Your task to perform on an android device: toggle sleep mode Image 0: 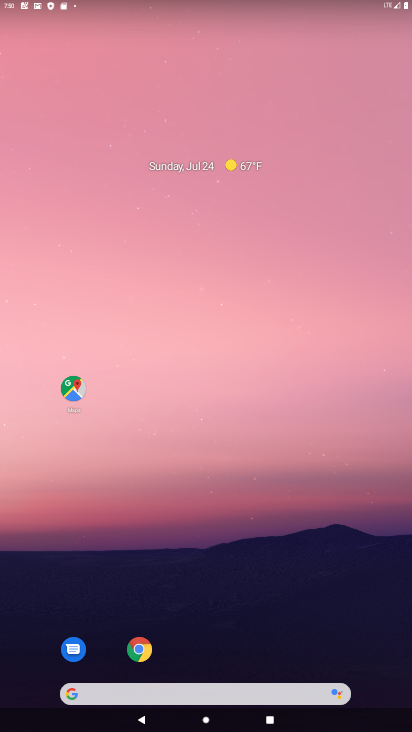
Step 0: drag from (232, 664) to (120, 70)
Your task to perform on an android device: toggle sleep mode Image 1: 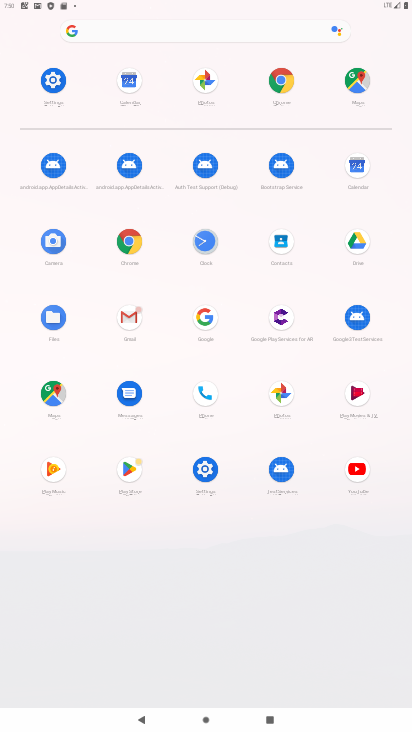
Step 1: click (52, 64)
Your task to perform on an android device: toggle sleep mode Image 2: 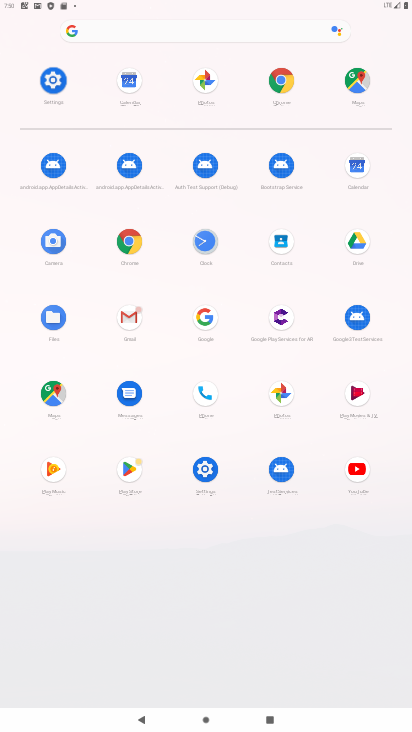
Step 2: click (52, 64)
Your task to perform on an android device: toggle sleep mode Image 3: 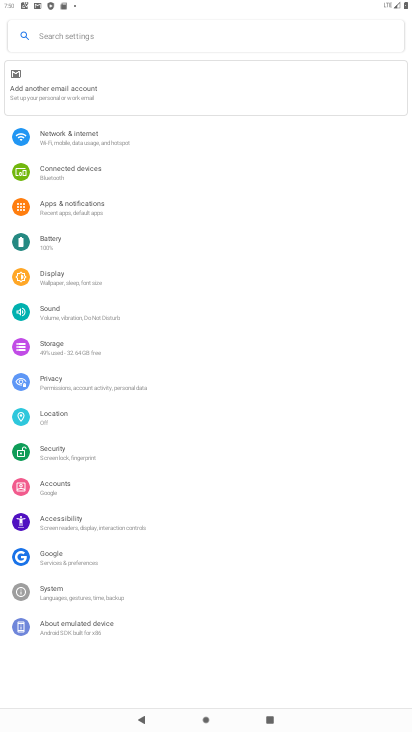
Step 3: click (53, 284)
Your task to perform on an android device: toggle sleep mode Image 4: 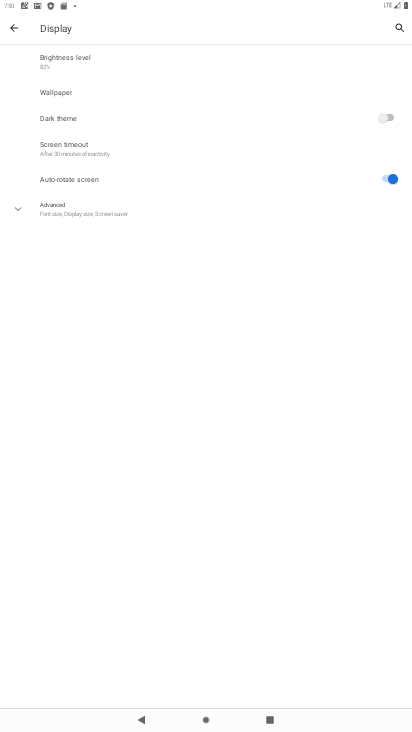
Step 4: task complete